Your task to perform on an android device: add a label to a message in the gmail app Image 0: 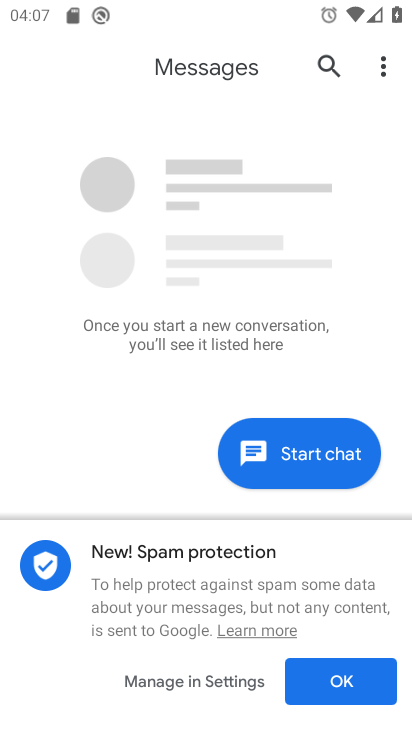
Step 0: press home button
Your task to perform on an android device: add a label to a message in the gmail app Image 1: 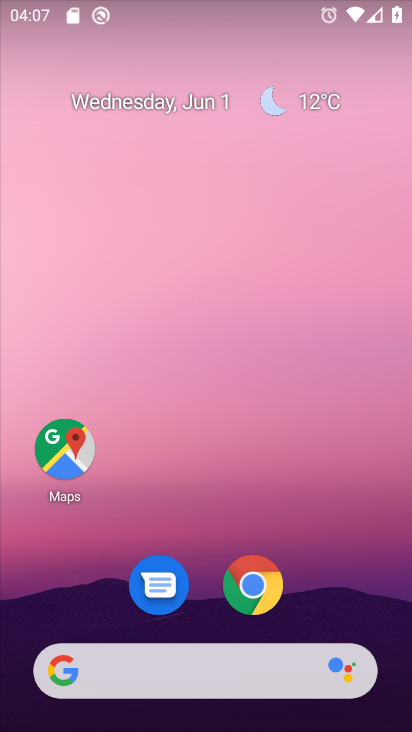
Step 1: drag from (212, 505) to (210, 4)
Your task to perform on an android device: add a label to a message in the gmail app Image 2: 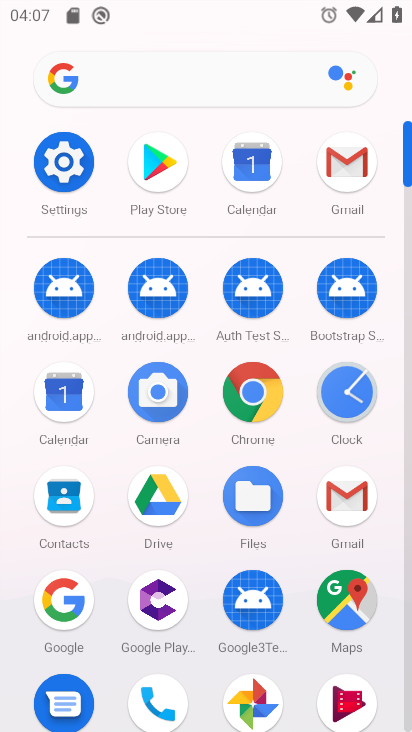
Step 2: click (344, 497)
Your task to perform on an android device: add a label to a message in the gmail app Image 3: 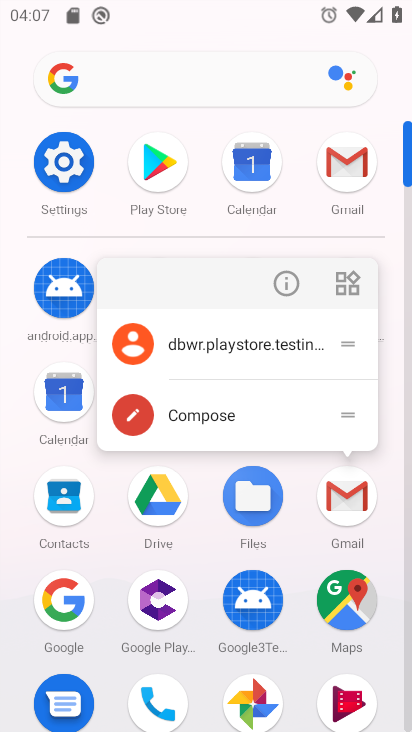
Step 3: click (344, 499)
Your task to perform on an android device: add a label to a message in the gmail app Image 4: 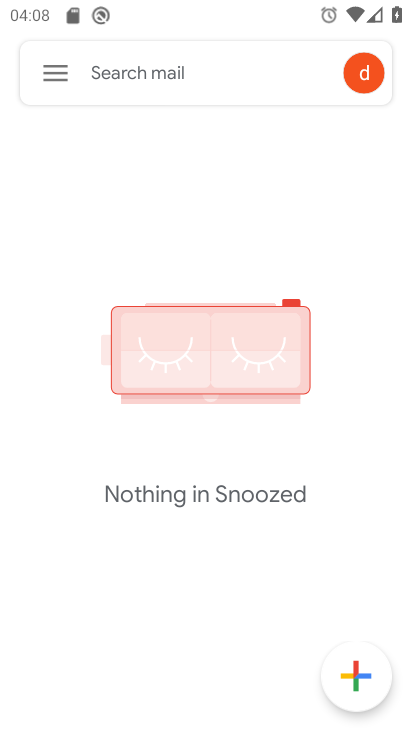
Step 4: click (59, 69)
Your task to perform on an android device: add a label to a message in the gmail app Image 5: 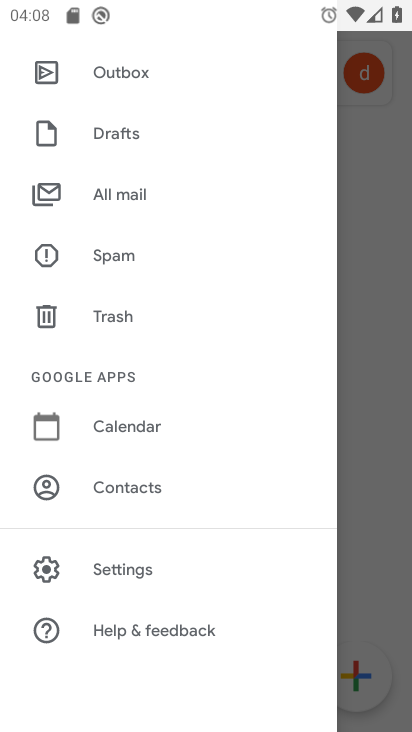
Step 5: click (122, 199)
Your task to perform on an android device: add a label to a message in the gmail app Image 6: 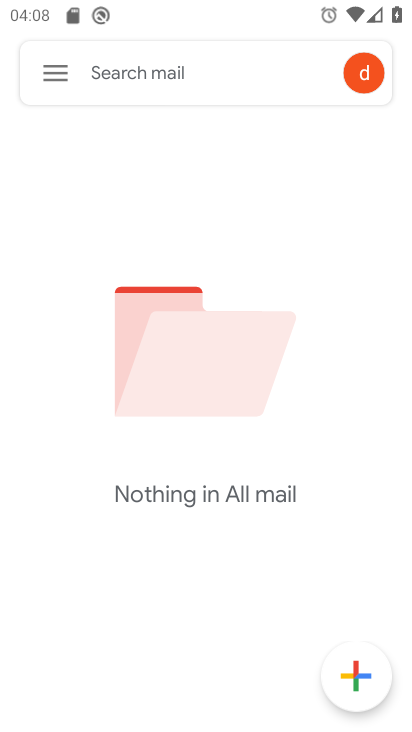
Step 6: task complete